Your task to perform on an android device: toggle priority inbox in the gmail app Image 0: 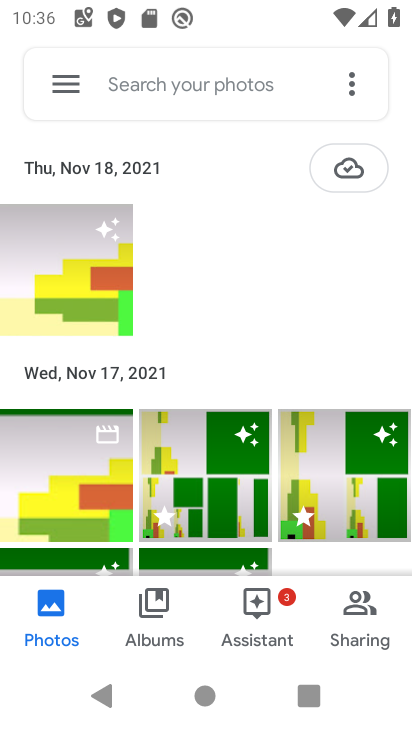
Step 0: press back button
Your task to perform on an android device: toggle priority inbox in the gmail app Image 1: 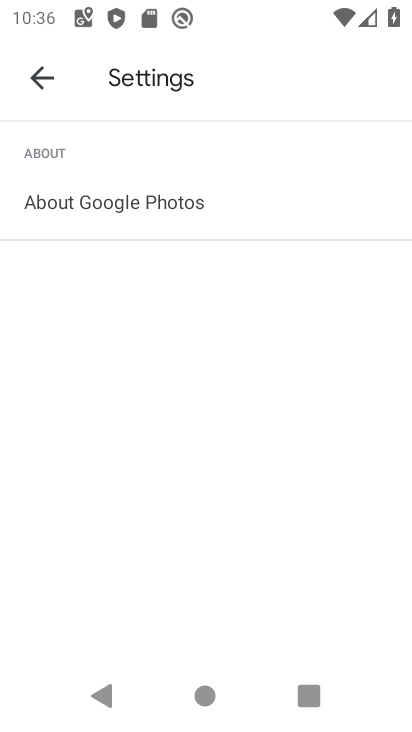
Step 1: press home button
Your task to perform on an android device: toggle priority inbox in the gmail app Image 2: 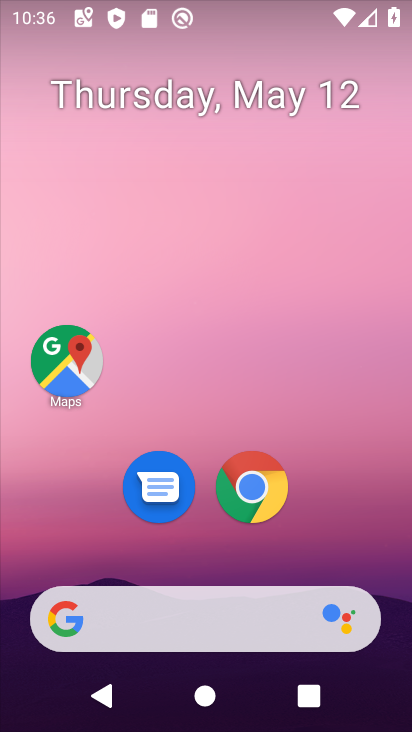
Step 2: drag from (59, 574) to (267, 124)
Your task to perform on an android device: toggle priority inbox in the gmail app Image 3: 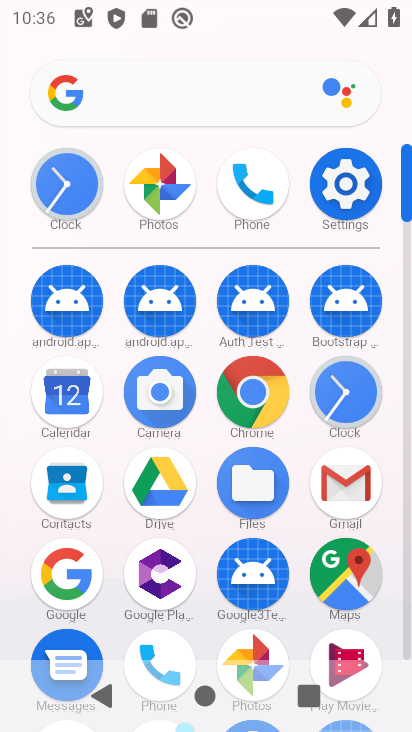
Step 3: click (322, 468)
Your task to perform on an android device: toggle priority inbox in the gmail app Image 4: 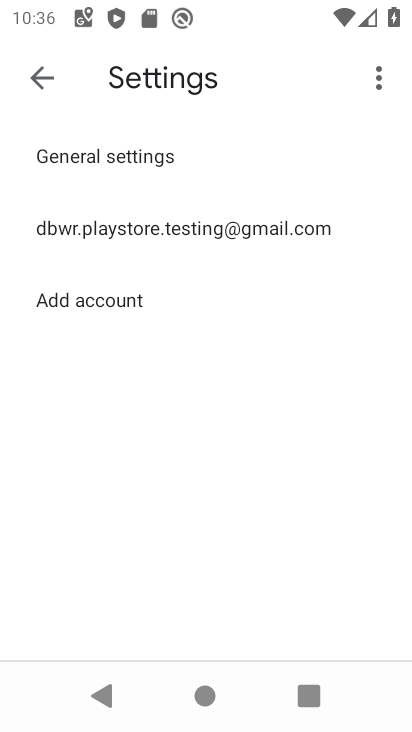
Step 4: click (74, 218)
Your task to perform on an android device: toggle priority inbox in the gmail app Image 5: 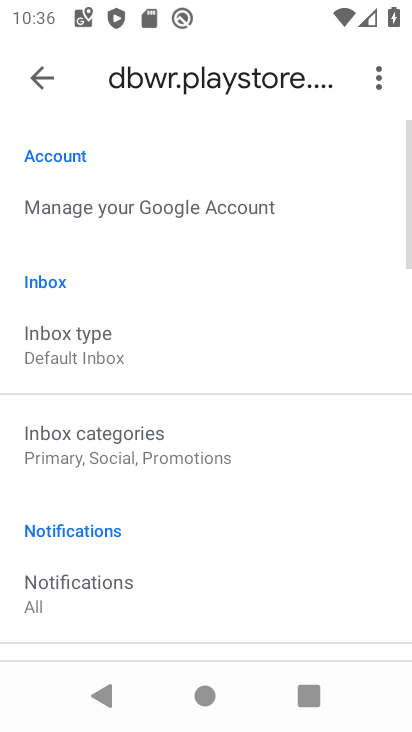
Step 5: click (106, 348)
Your task to perform on an android device: toggle priority inbox in the gmail app Image 6: 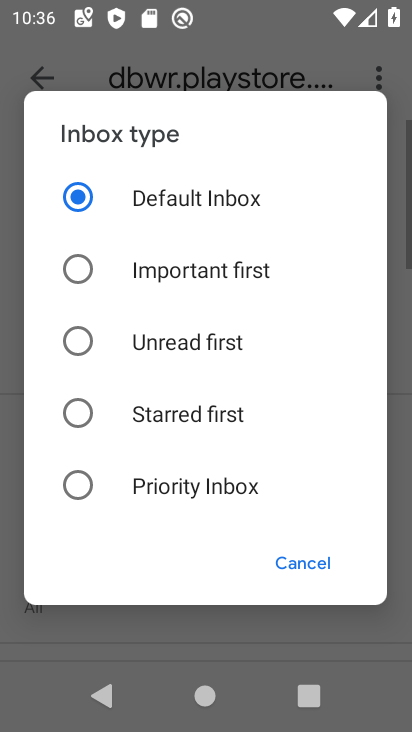
Step 6: click (83, 490)
Your task to perform on an android device: toggle priority inbox in the gmail app Image 7: 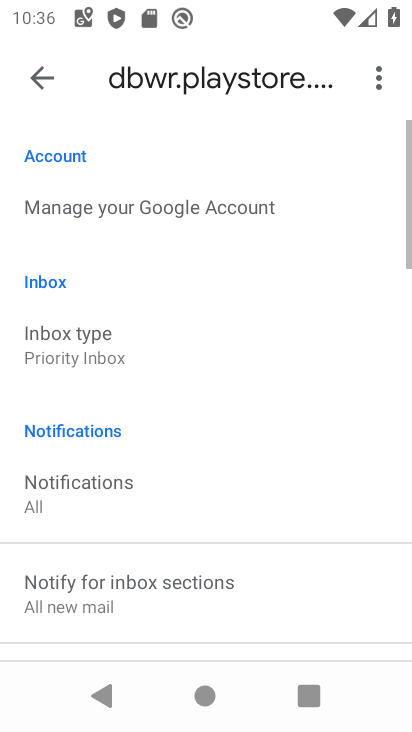
Step 7: task complete